Your task to perform on an android device: Is it going to rain this weekend? Image 0: 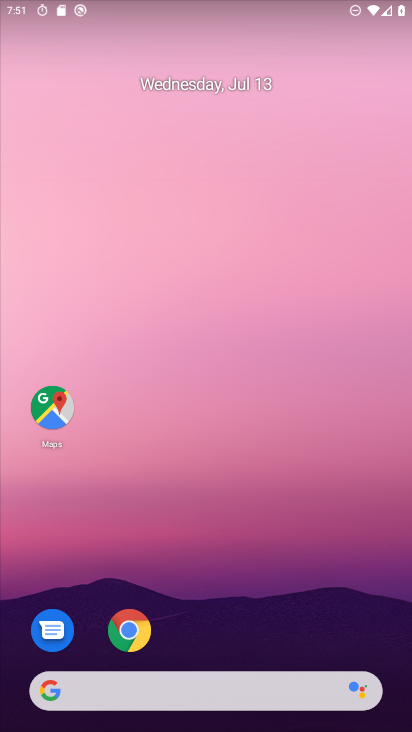
Step 0: drag from (379, 646) to (293, 2)
Your task to perform on an android device: Is it going to rain this weekend? Image 1: 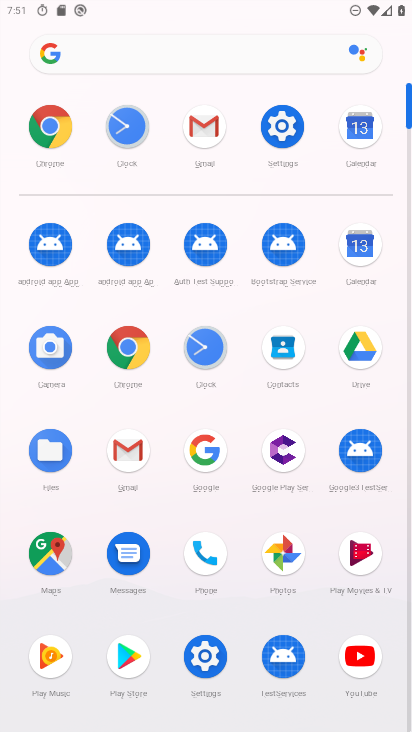
Step 1: click (187, 454)
Your task to perform on an android device: Is it going to rain this weekend? Image 2: 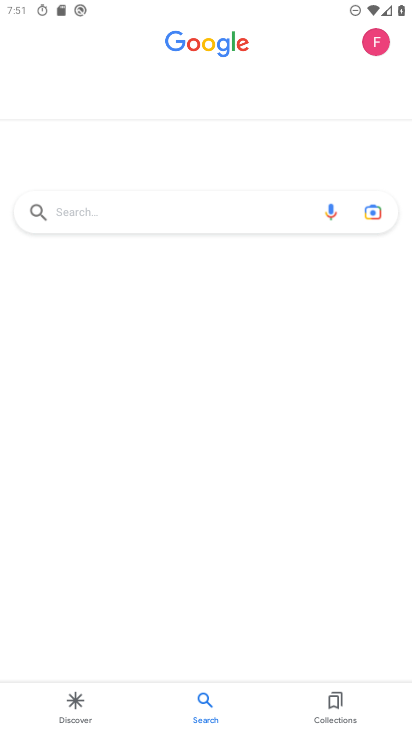
Step 2: click (114, 212)
Your task to perform on an android device: Is it going to rain this weekend? Image 3: 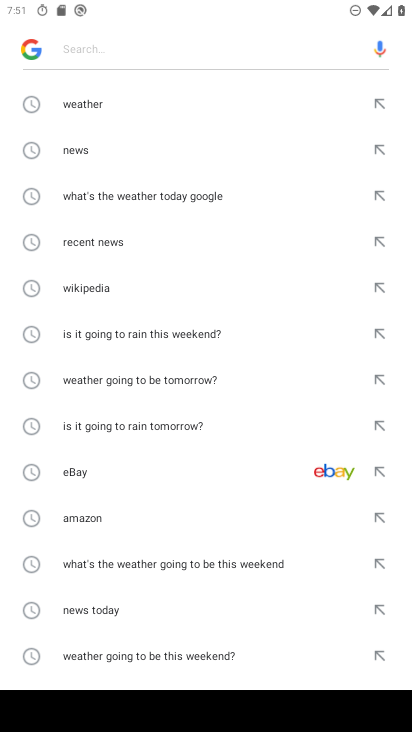
Step 3: type "Is it going to rain this weekend?"
Your task to perform on an android device: Is it going to rain this weekend? Image 4: 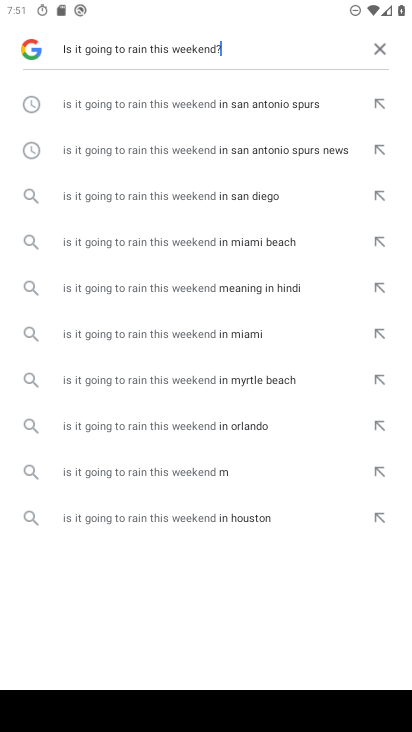
Step 4: click (169, 475)
Your task to perform on an android device: Is it going to rain this weekend? Image 5: 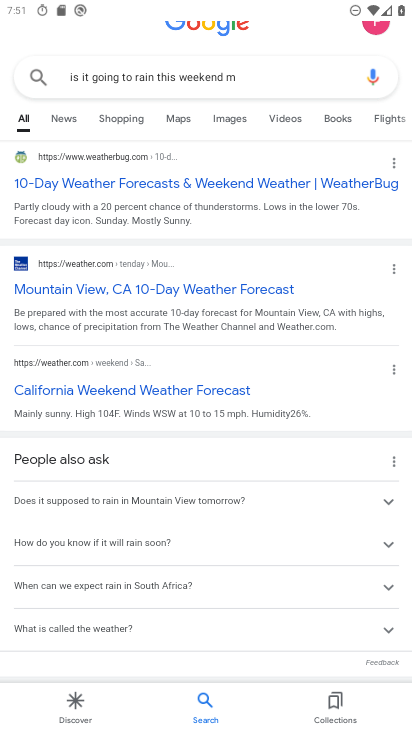
Step 5: task complete